Your task to perform on an android device: Play the last video I watched on Youtube Image 0: 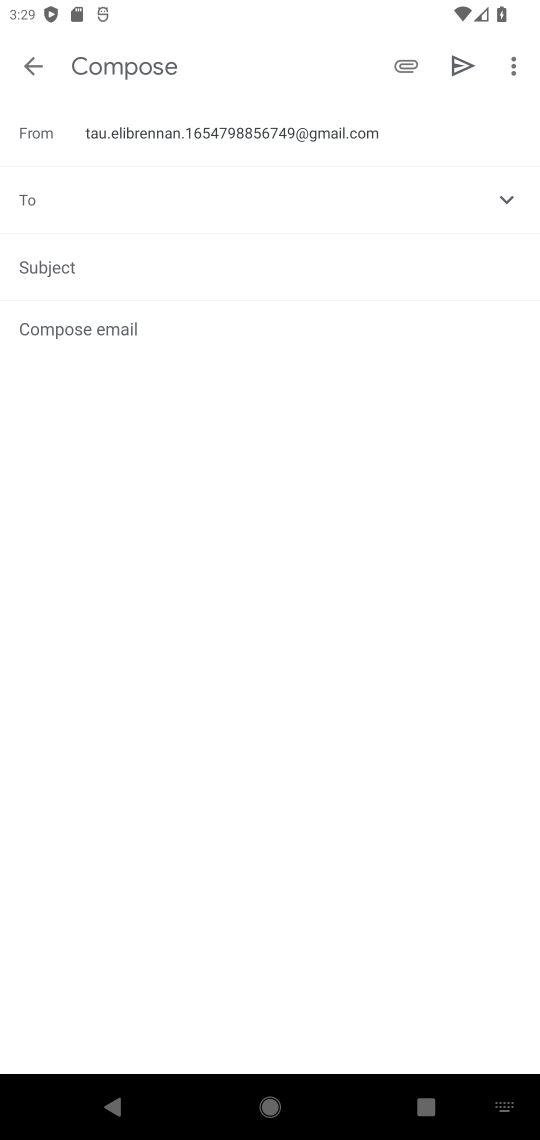
Step 0: press home button
Your task to perform on an android device: Play the last video I watched on Youtube Image 1: 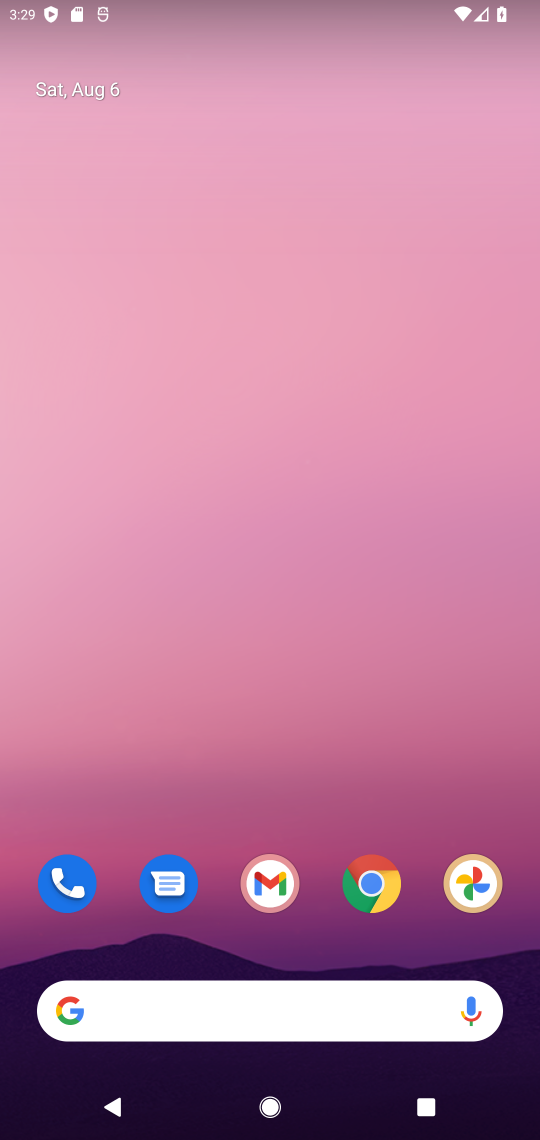
Step 1: drag from (264, 677) to (392, 140)
Your task to perform on an android device: Play the last video I watched on Youtube Image 2: 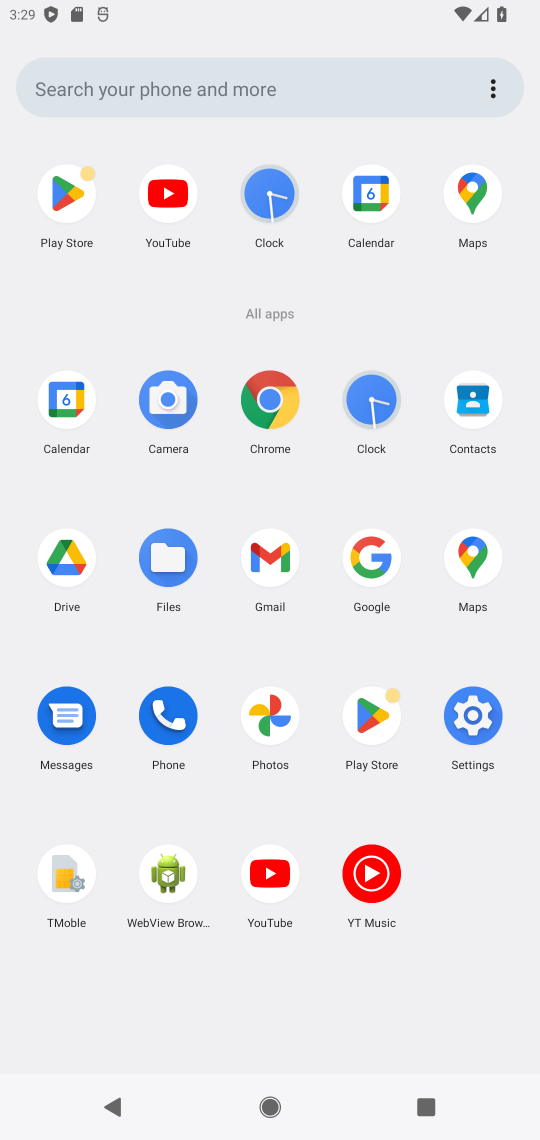
Step 2: click (273, 889)
Your task to perform on an android device: Play the last video I watched on Youtube Image 3: 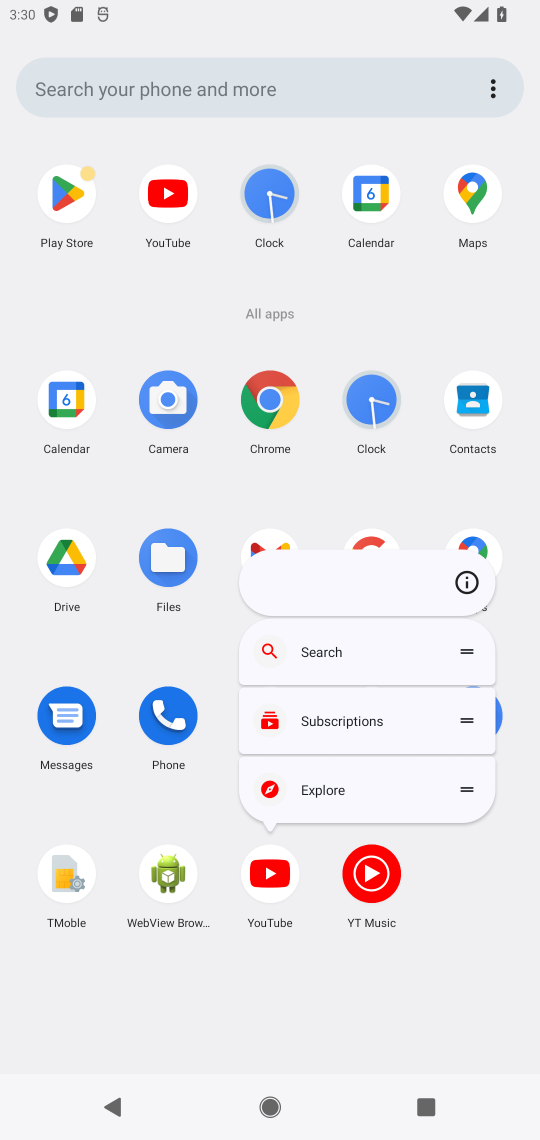
Step 3: click (283, 991)
Your task to perform on an android device: Play the last video I watched on Youtube Image 4: 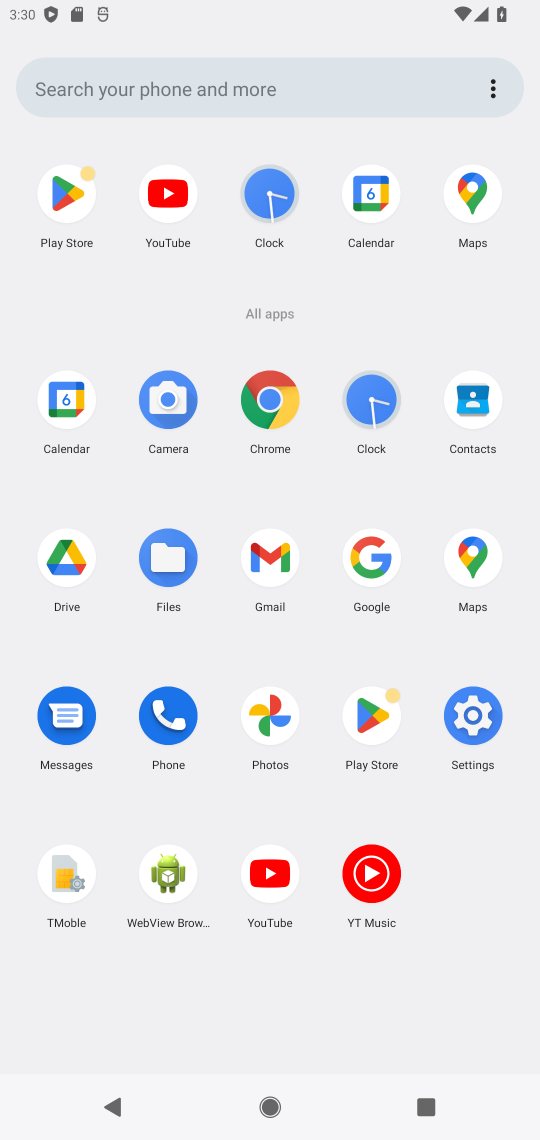
Step 4: click (274, 869)
Your task to perform on an android device: Play the last video I watched on Youtube Image 5: 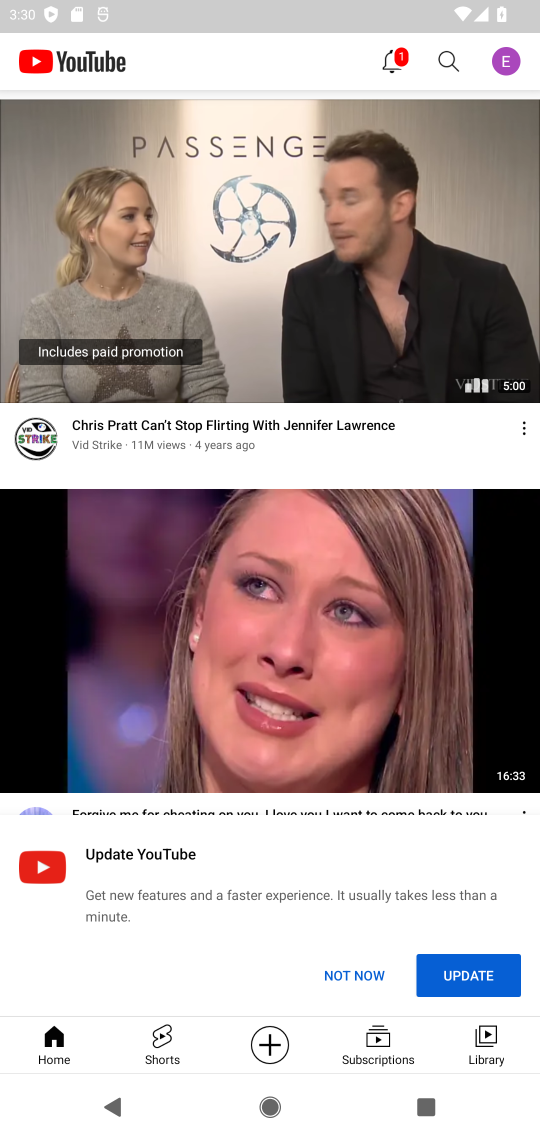
Step 5: click (494, 1056)
Your task to perform on an android device: Play the last video I watched on Youtube Image 6: 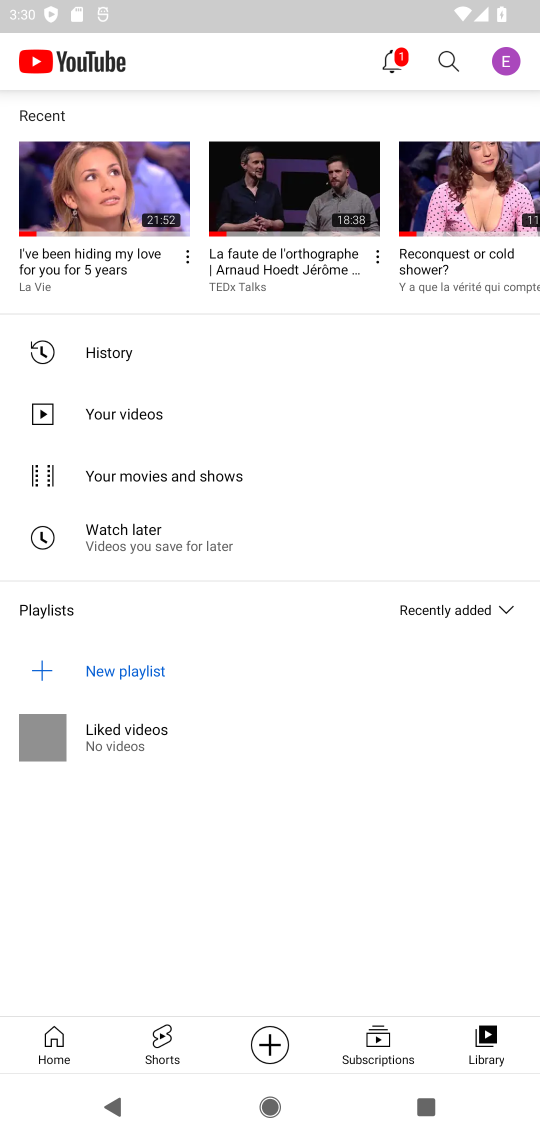
Step 6: click (113, 353)
Your task to perform on an android device: Play the last video I watched on Youtube Image 7: 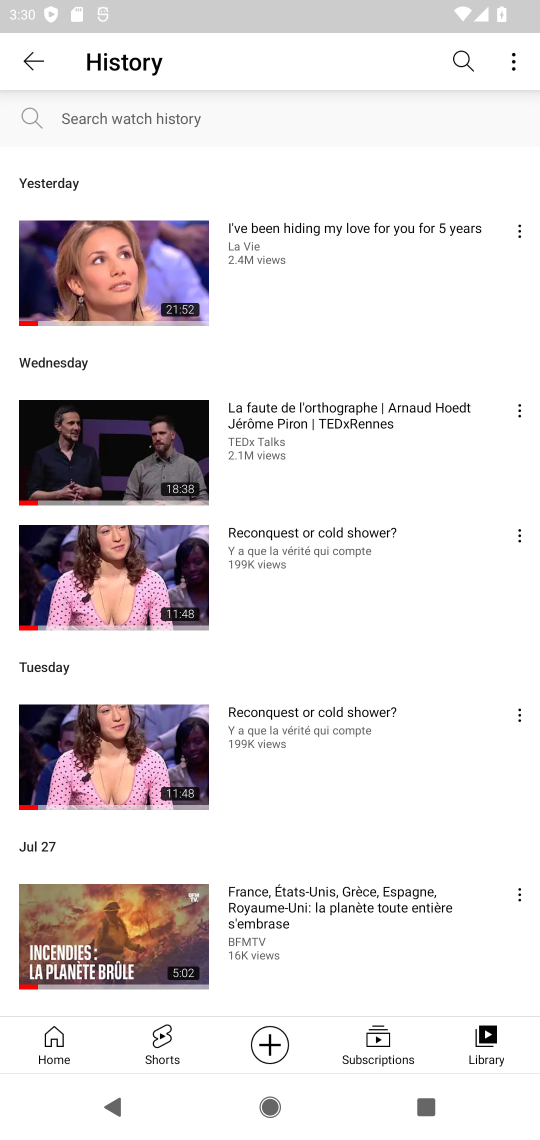
Step 7: click (109, 288)
Your task to perform on an android device: Play the last video I watched on Youtube Image 8: 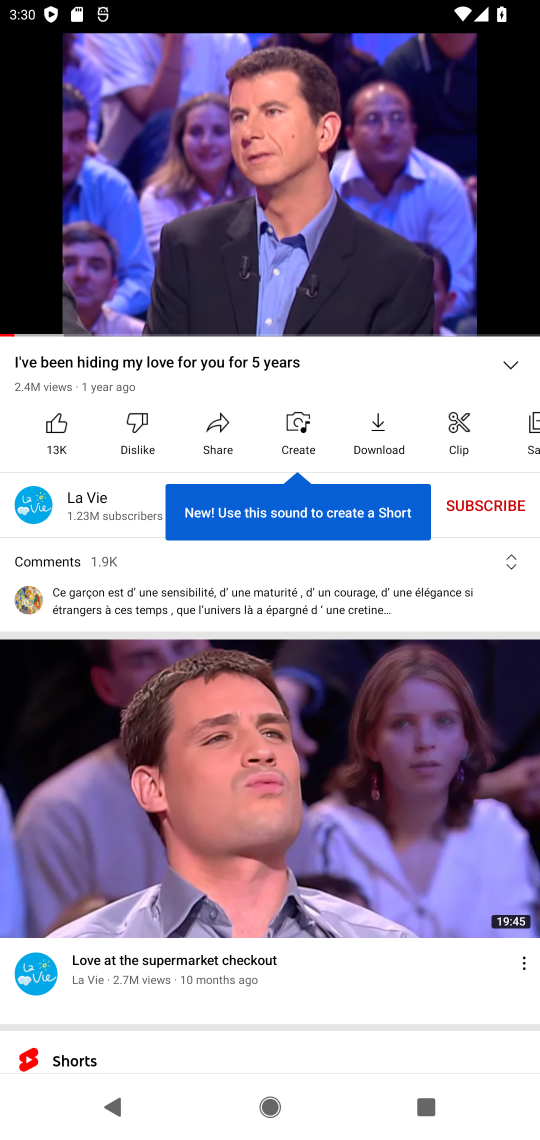
Step 8: task complete